Your task to perform on an android device: open app "PlayWell" (install if not already installed) Image 0: 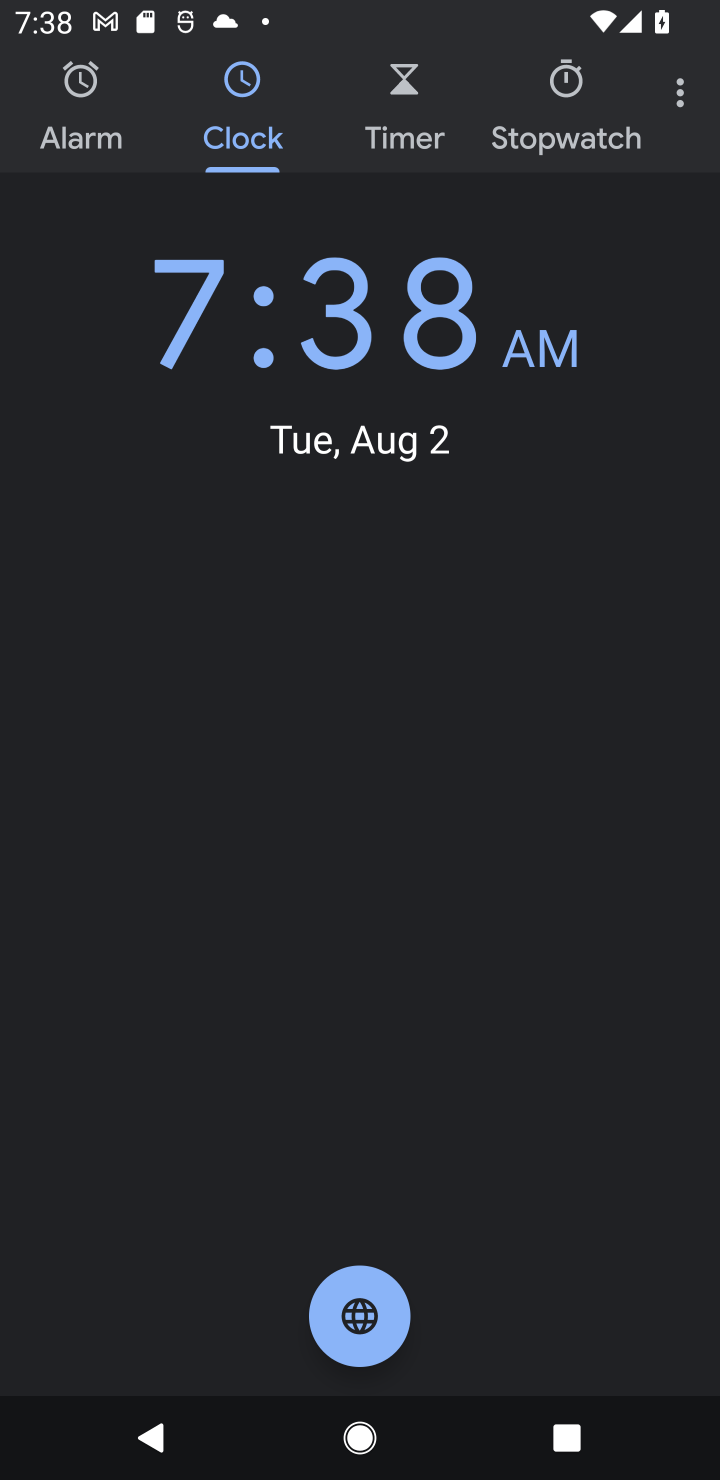
Step 0: press home button
Your task to perform on an android device: open app "PlayWell" (install if not already installed) Image 1: 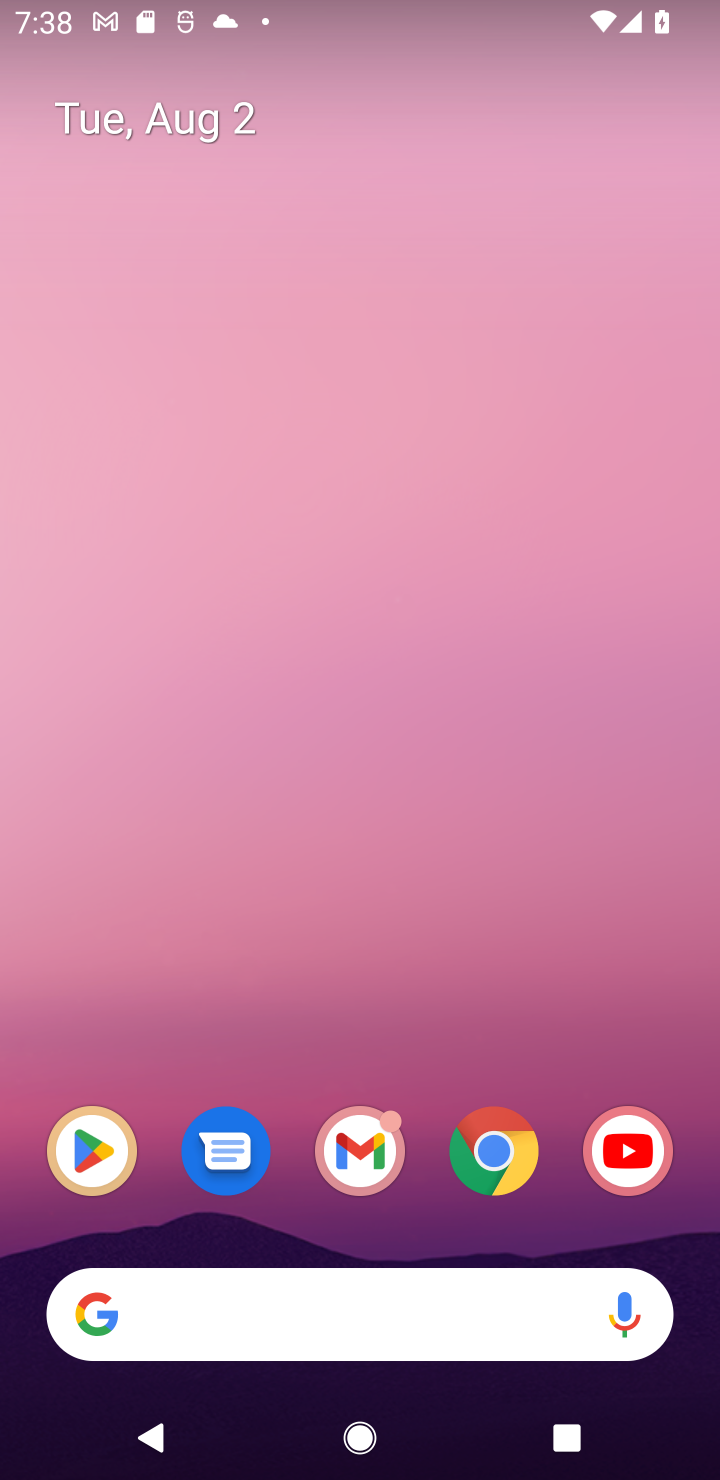
Step 1: click (32, 1167)
Your task to perform on an android device: open app "PlayWell" (install if not already installed) Image 2: 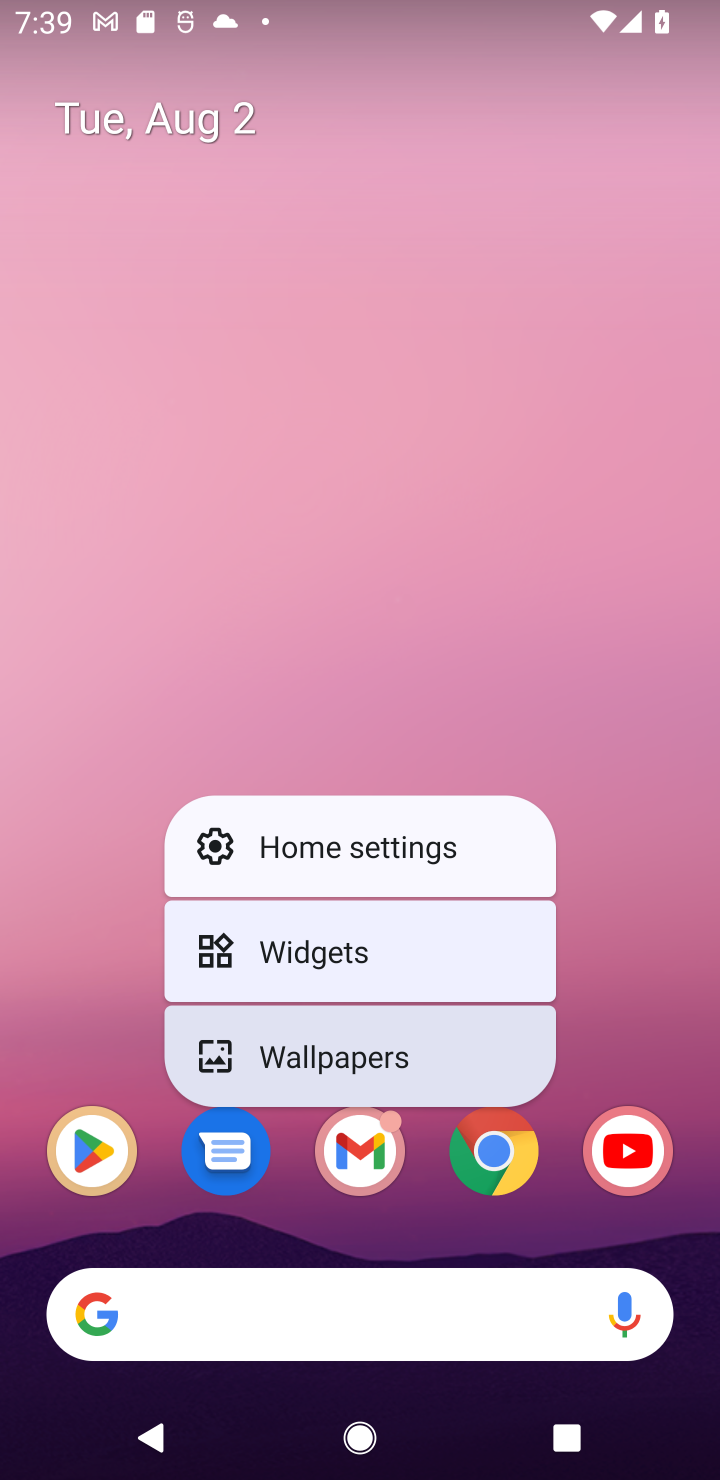
Step 2: click (90, 1152)
Your task to perform on an android device: open app "PlayWell" (install if not already installed) Image 3: 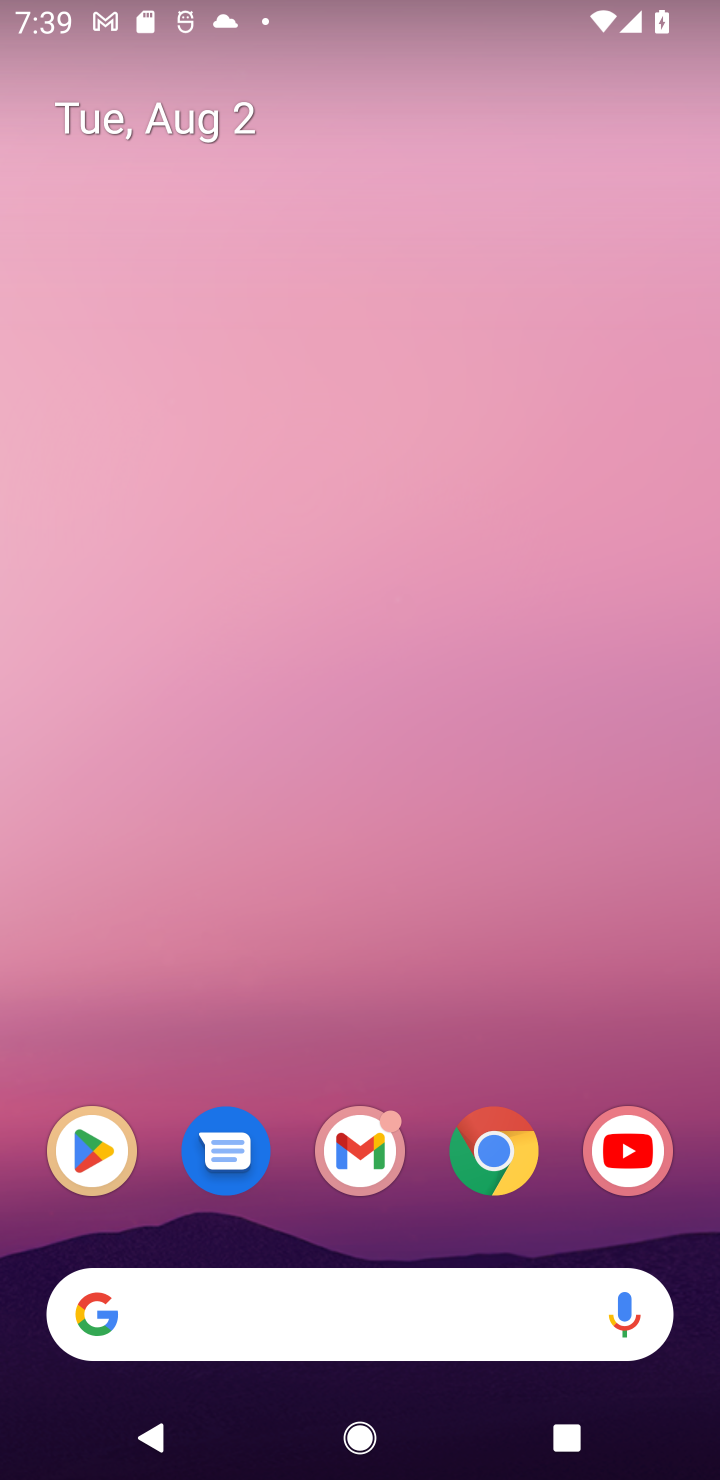
Step 3: click (83, 1125)
Your task to perform on an android device: open app "PlayWell" (install if not already installed) Image 4: 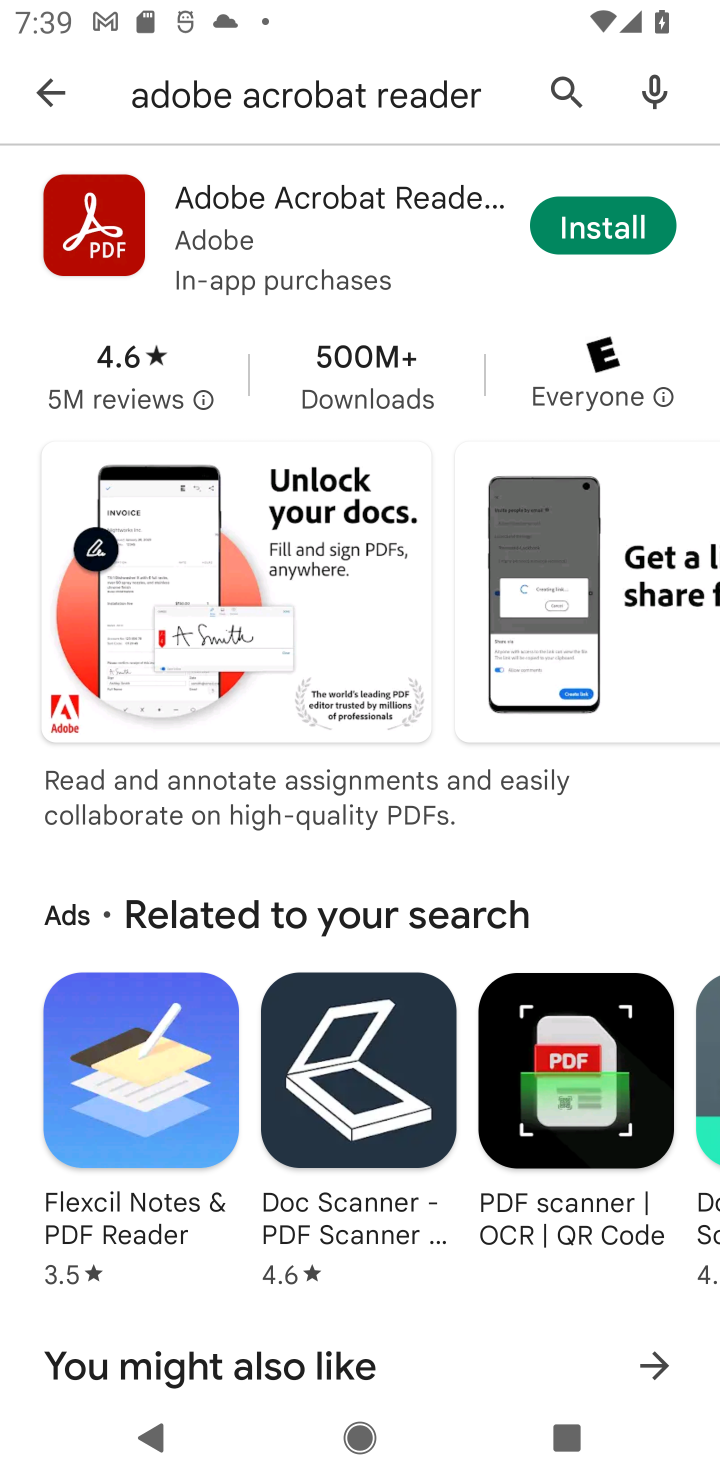
Step 4: click (555, 87)
Your task to perform on an android device: open app "PlayWell" (install if not already installed) Image 5: 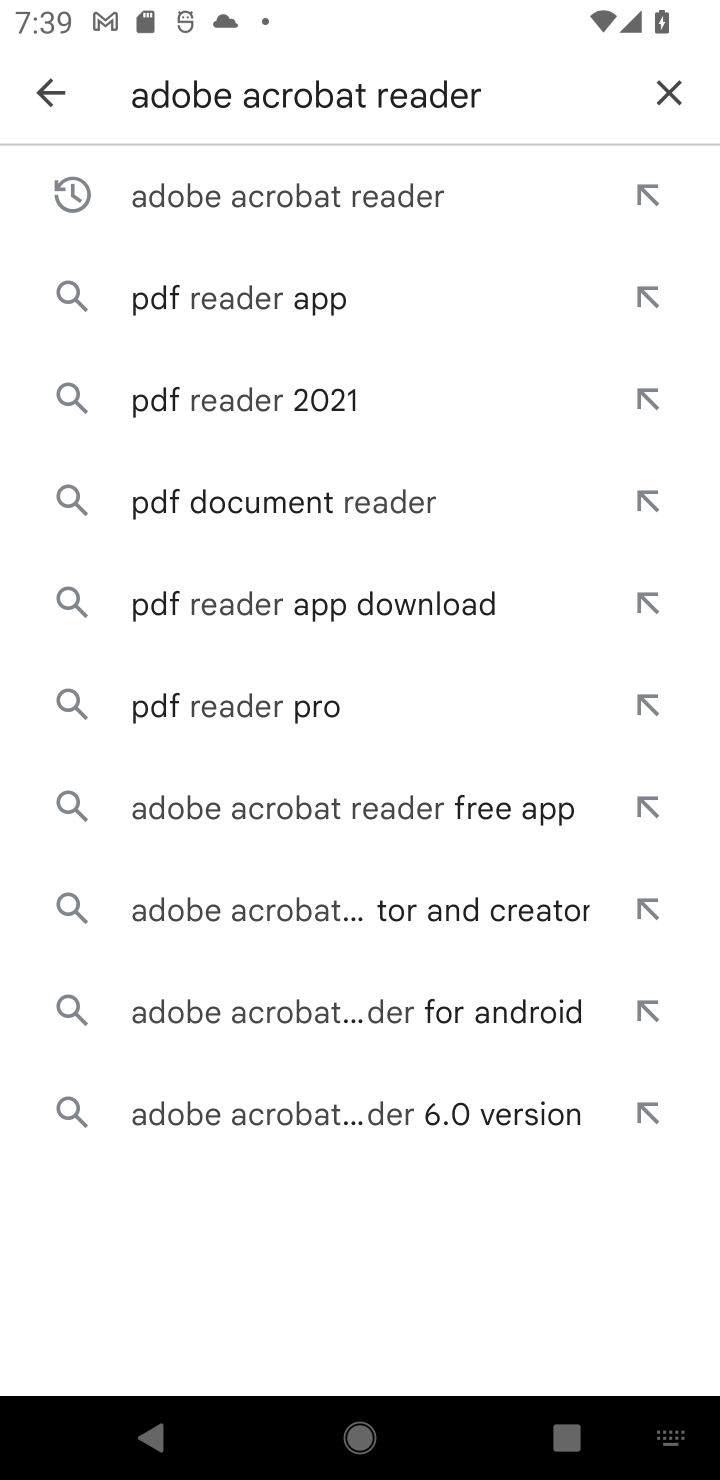
Step 5: click (690, 68)
Your task to perform on an android device: open app "PlayWell" (install if not already installed) Image 6: 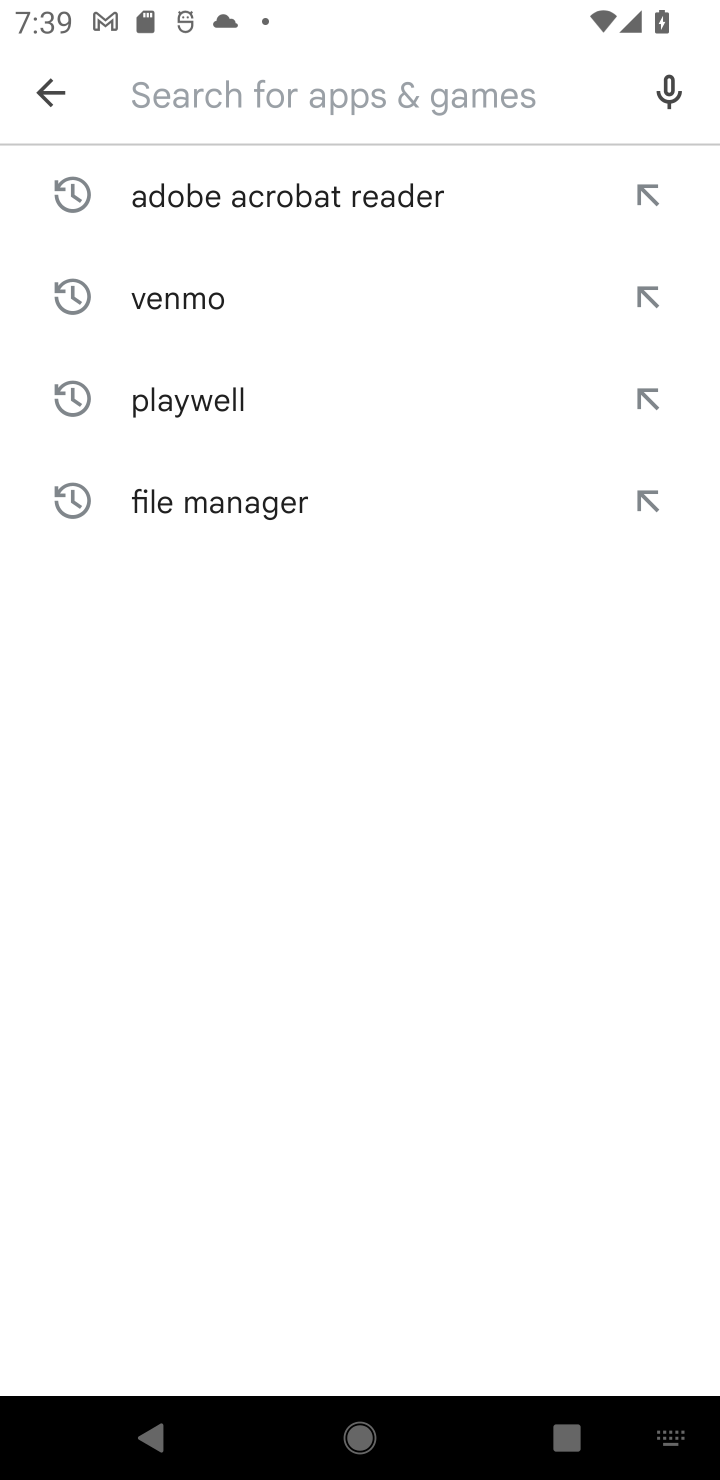
Step 6: type "PlayWell"
Your task to perform on an android device: open app "PlayWell" (install if not already installed) Image 7: 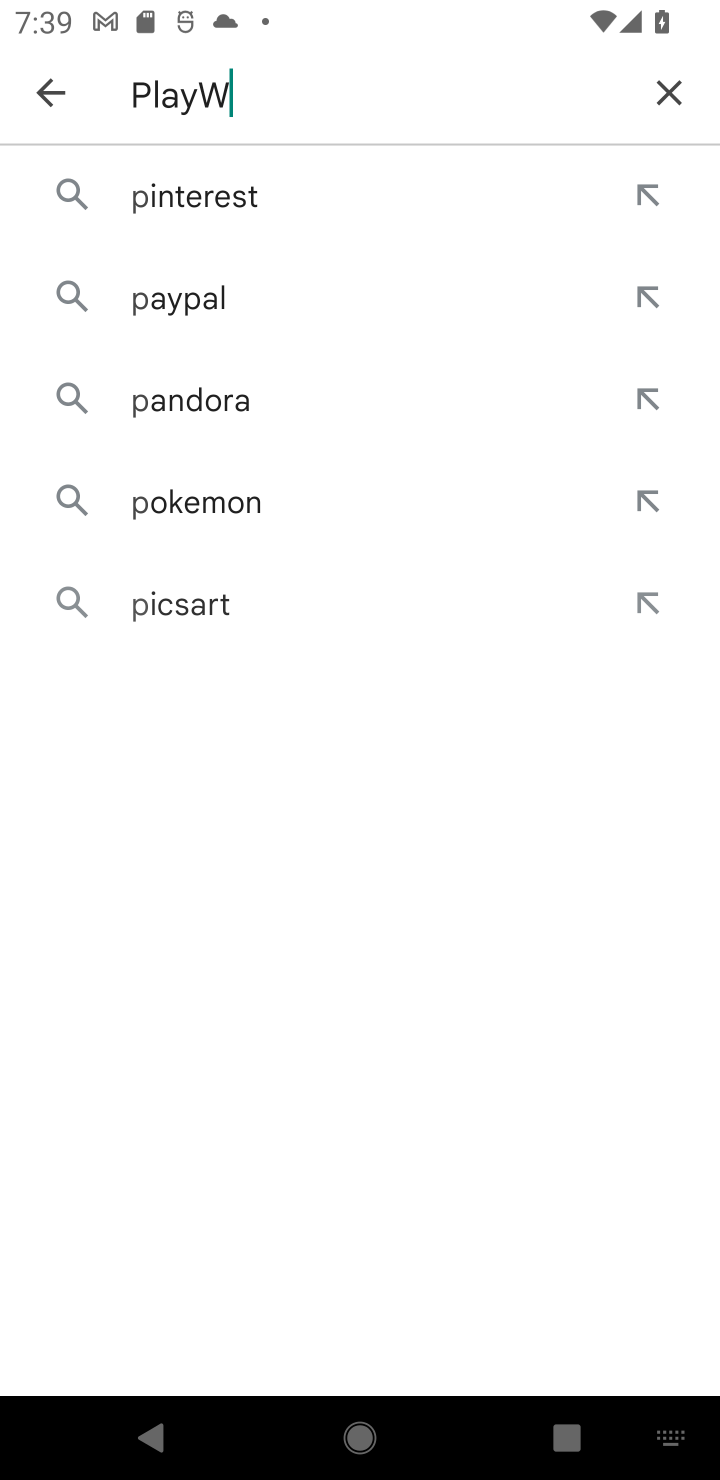
Step 7: type ""
Your task to perform on an android device: open app "PlayWell" (install if not already installed) Image 8: 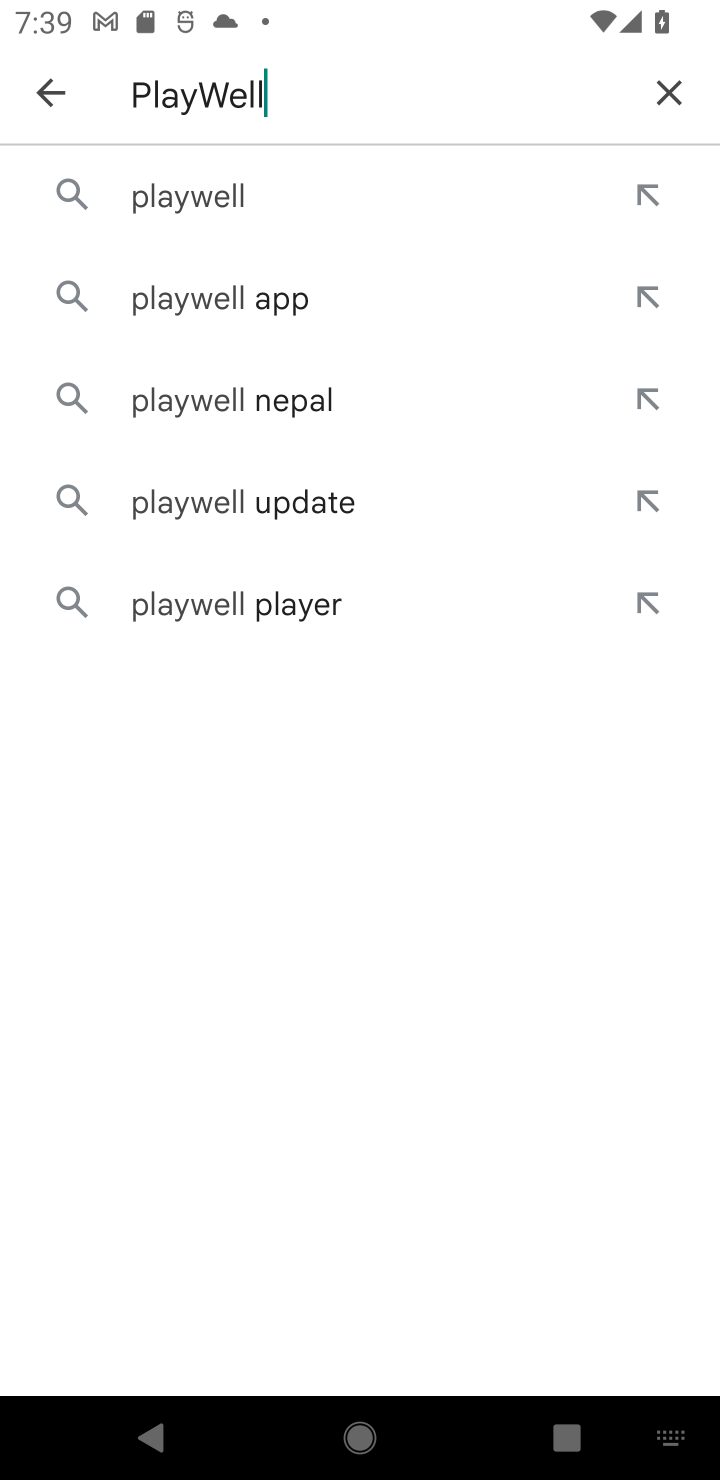
Step 8: click (217, 220)
Your task to perform on an android device: open app "PlayWell" (install if not already installed) Image 9: 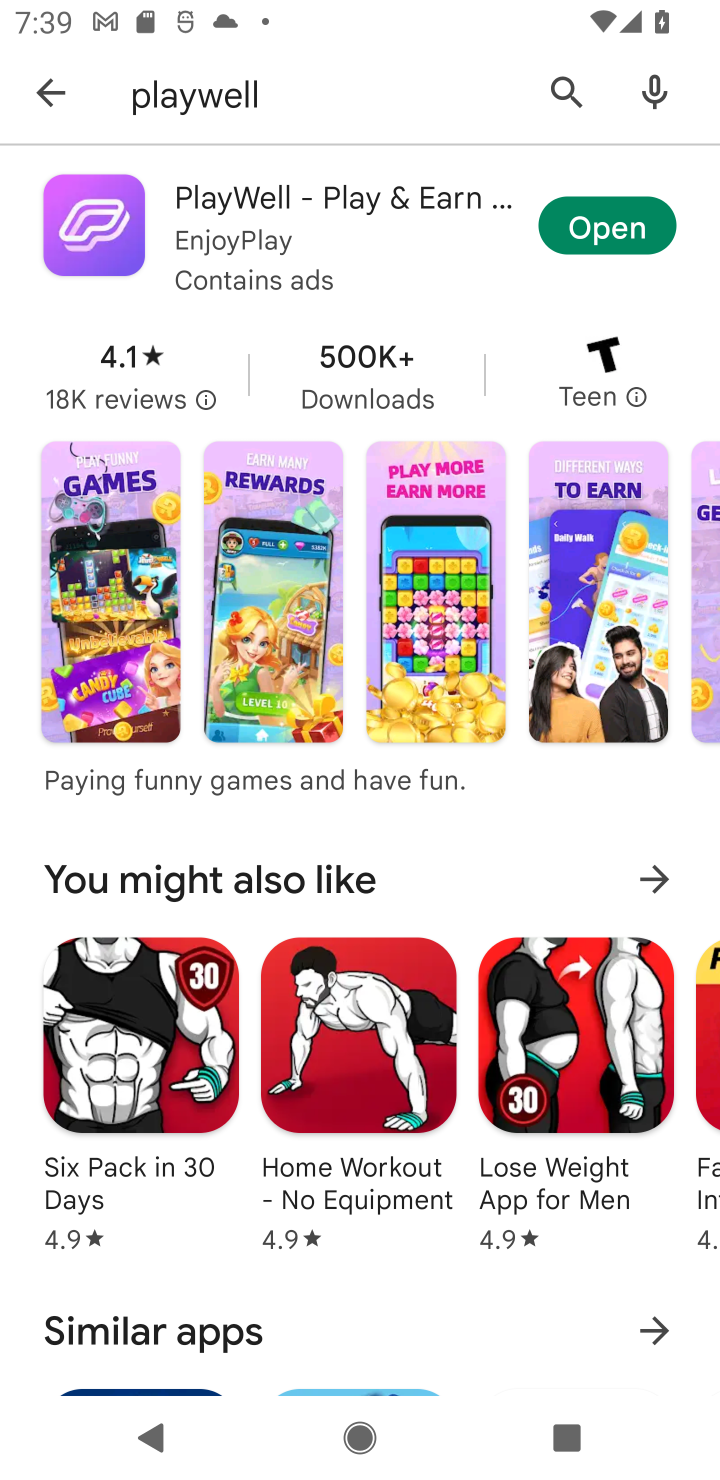
Step 9: click (595, 225)
Your task to perform on an android device: open app "PlayWell" (install if not already installed) Image 10: 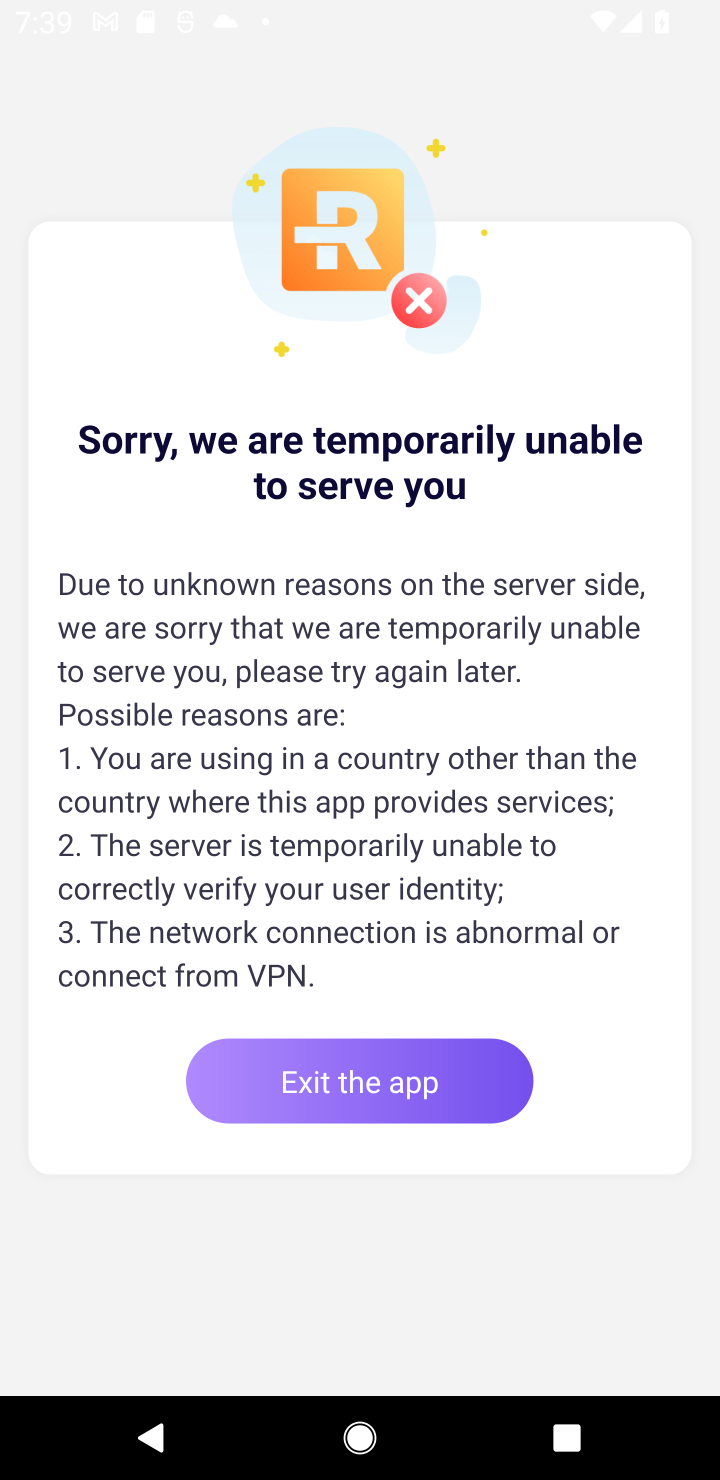
Step 10: task complete